Your task to perform on an android device: Show me productivity apps on the Play Store Image 0: 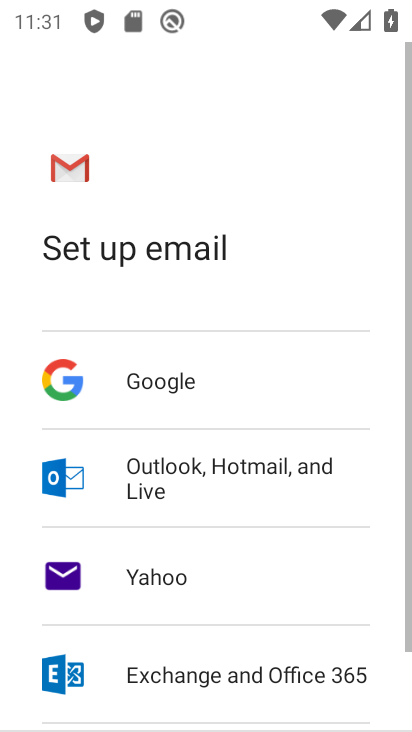
Step 0: press home button
Your task to perform on an android device: Show me productivity apps on the Play Store Image 1: 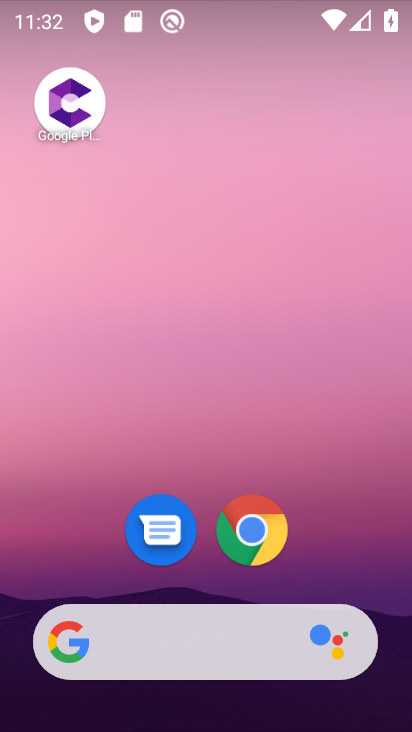
Step 1: drag from (114, 600) to (121, 223)
Your task to perform on an android device: Show me productivity apps on the Play Store Image 2: 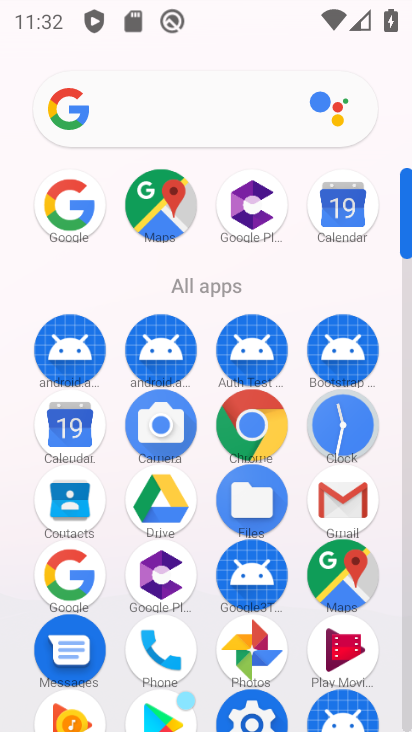
Step 2: click (152, 707)
Your task to perform on an android device: Show me productivity apps on the Play Store Image 3: 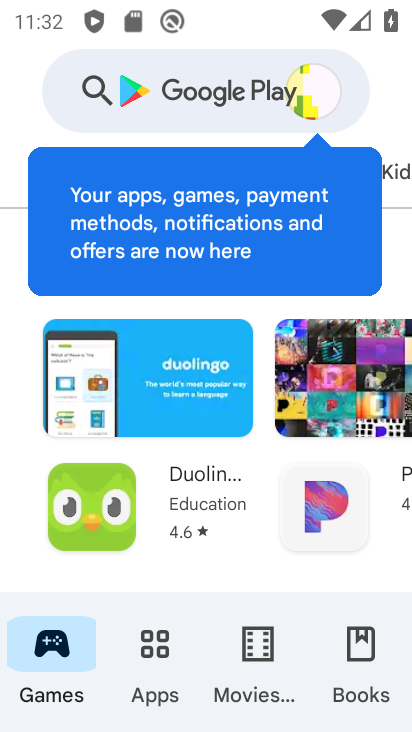
Step 3: click (145, 673)
Your task to perform on an android device: Show me productivity apps on the Play Store Image 4: 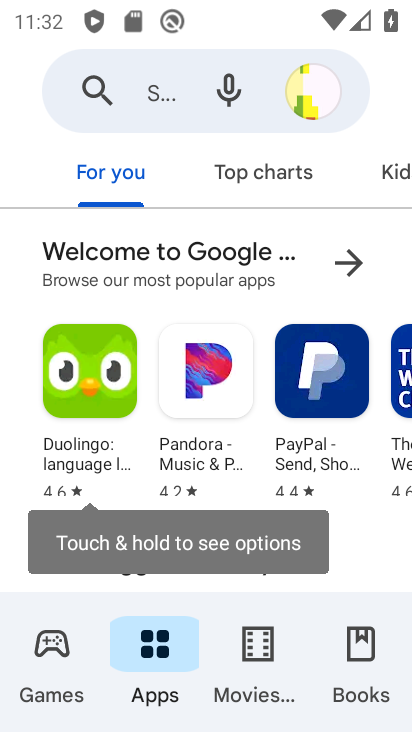
Step 4: task complete